Your task to perform on an android device: turn vacation reply on in the gmail app Image 0: 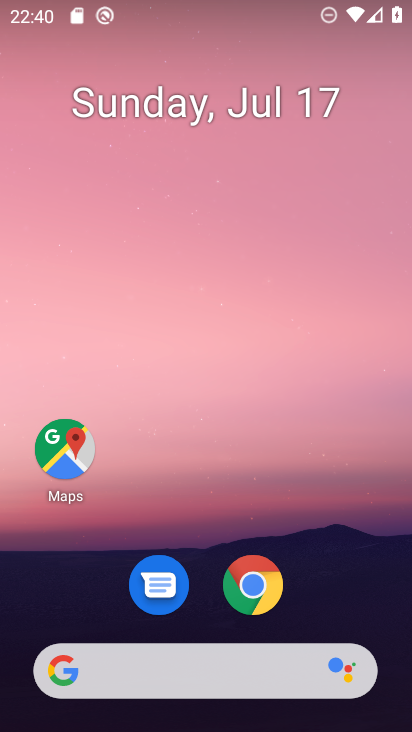
Step 0: drag from (191, 674) to (287, 30)
Your task to perform on an android device: turn vacation reply on in the gmail app Image 1: 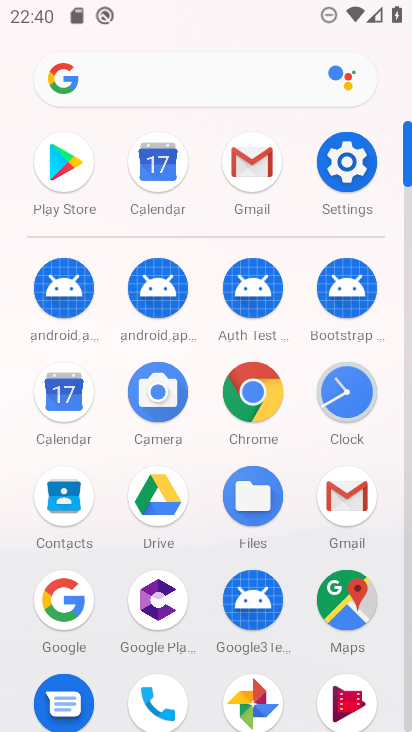
Step 1: click (253, 175)
Your task to perform on an android device: turn vacation reply on in the gmail app Image 2: 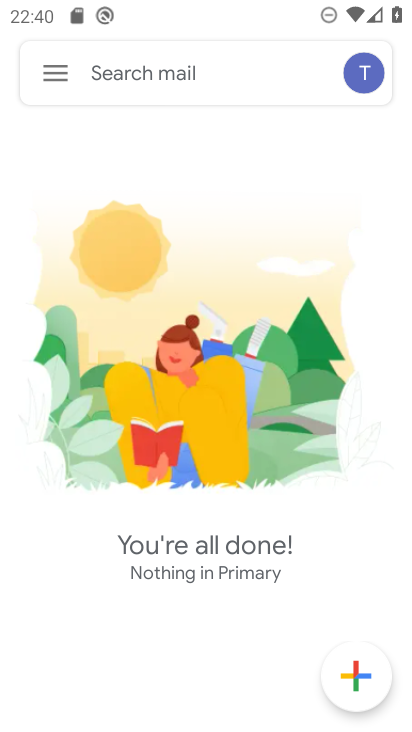
Step 2: click (52, 79)
Your task to perform on an android device: turn vacation reply on in the gmail app Image 3: 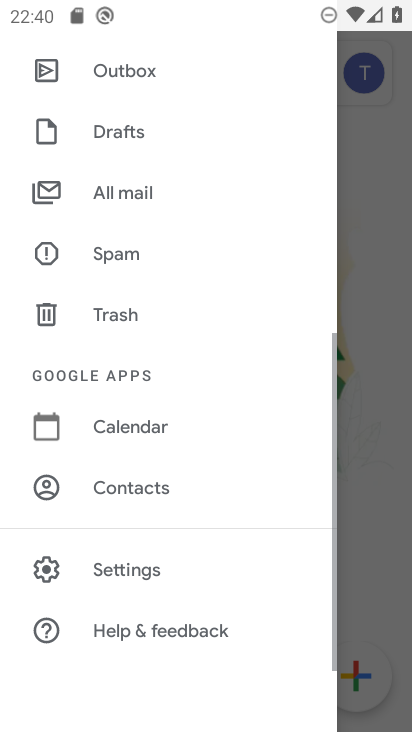
Step 3: click (164, 563)
Your task to perform on an android device: turn vacation reply on in the gmail app Image 4: 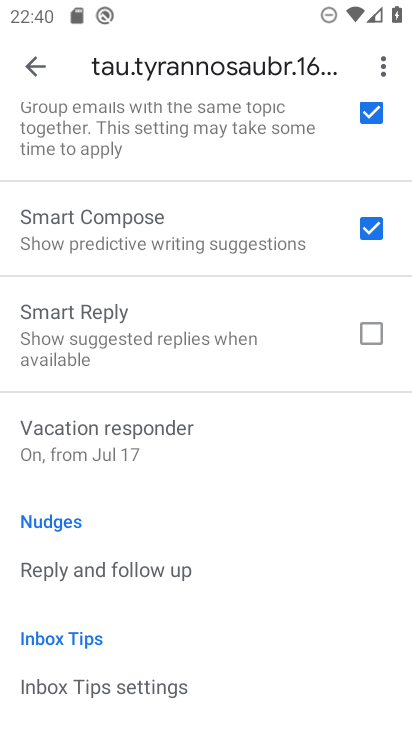
Step 4: click (110, 436)
Your task to perform on an android device: turn vacation reply on in the gmail app Image 5: 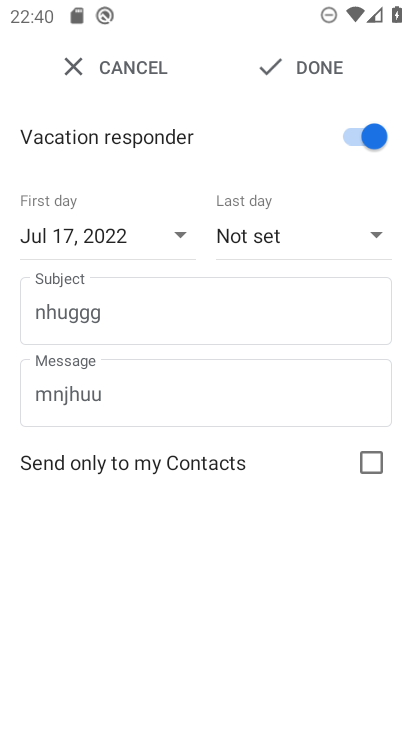
Step 5: task complete